Your task to perform on an android device: Open my contact list Image 0: 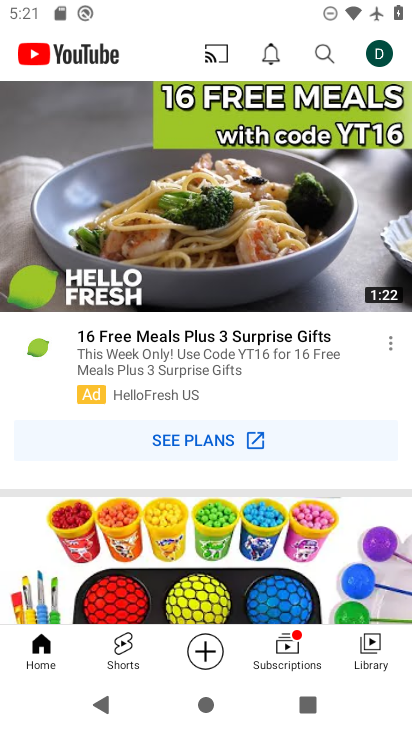
Step 0: press home button
Your task to perform on an android device: Open my contact list Image 1: 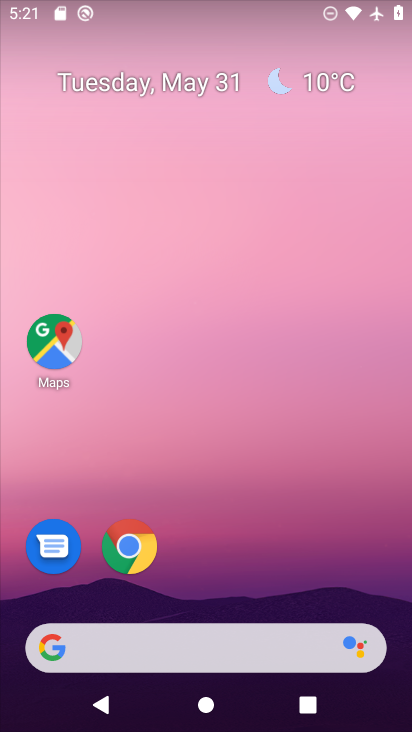
Step 1: drag from (332, 552) to (300, 22)
Your task to perform on an android device: Open my contact list Image 2: 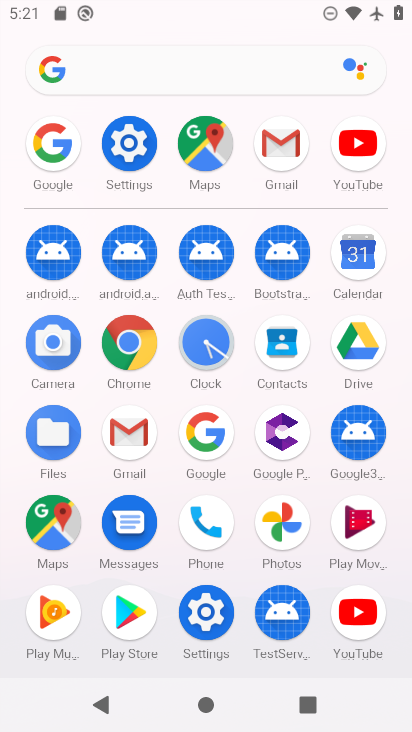
Step 2: click (291, 345)
Your task to perform on an android device: Open my contact list Image 3: 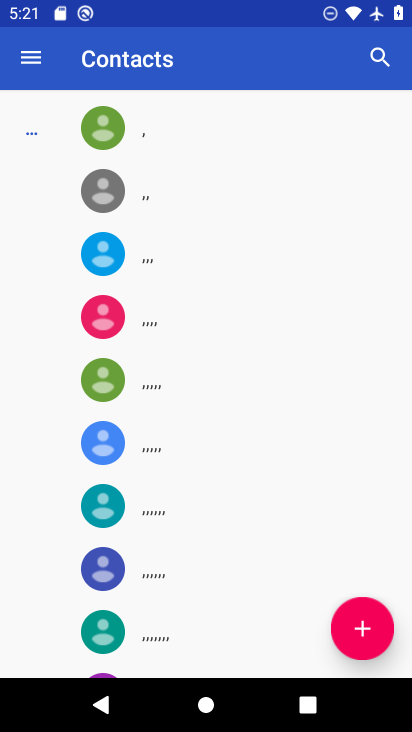
Step 3: task complete